Your task to perform on an android device: change your default location settings in chrome Image 0: 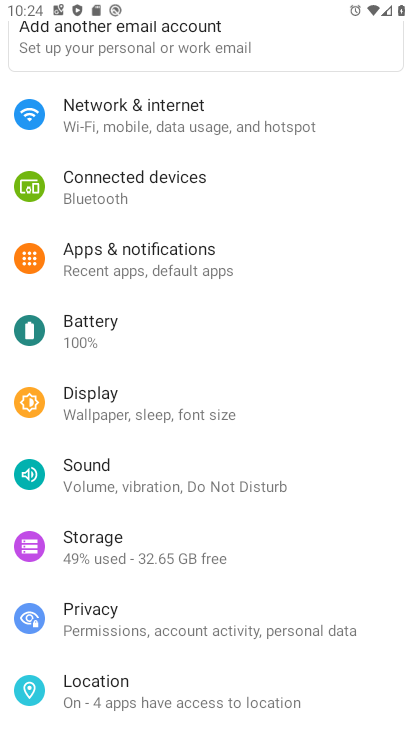
Step 0: press home button
Your task to perform on an android device: change your default location settings in chrome Image 1: 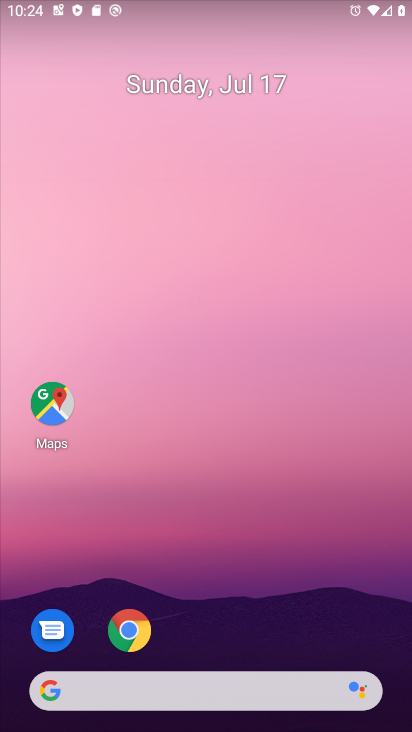
Step 1: drag from (292, 601) to (294, 50)
Your task to perform on an android device: change your default location settings in chrome Image 2: 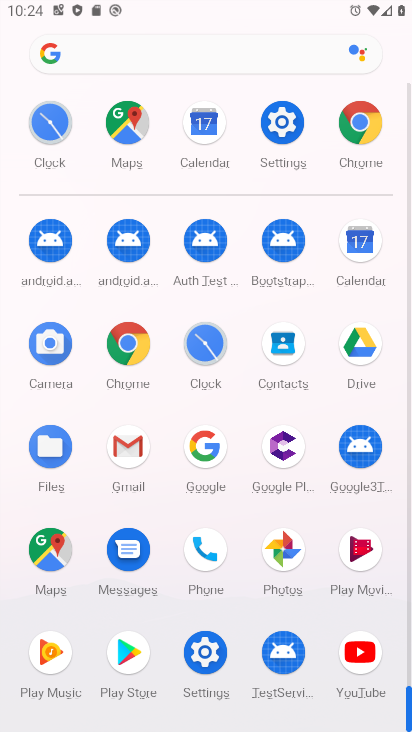
Step 2: click (126, 354)
Your task to perform on an android device: change your default location settings in chrome Image 3: 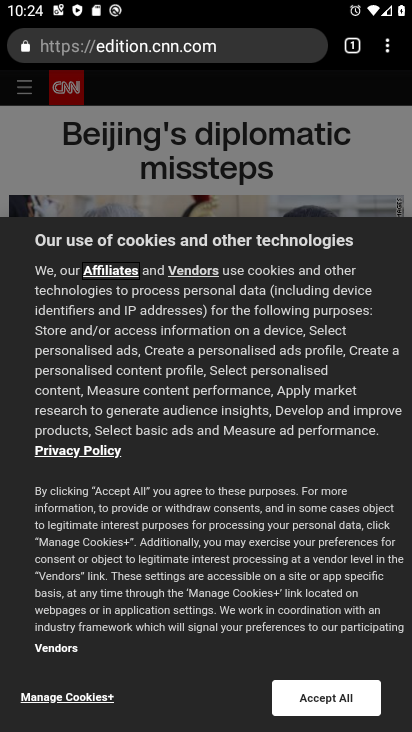
Step 3: click (387, 48)
Your task to perform on an android device: change your default location settings in chrome Image 4: 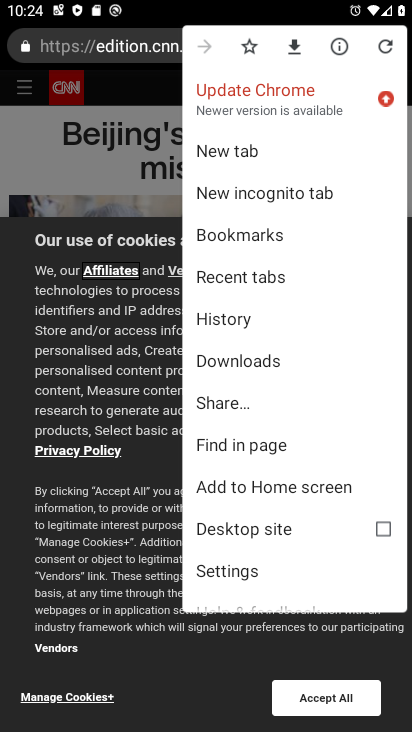
Step 4: drag from (308, 447) to (335, 281)
Your task to perform on an android device: change your default location settings in chrome Image 5: 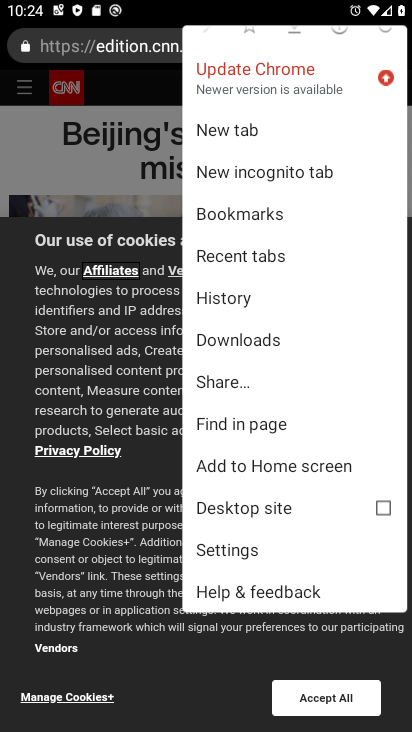
Step 5: click (270, 553)
Your task to perform on an android device: change your default location settings in chrome Image 6: 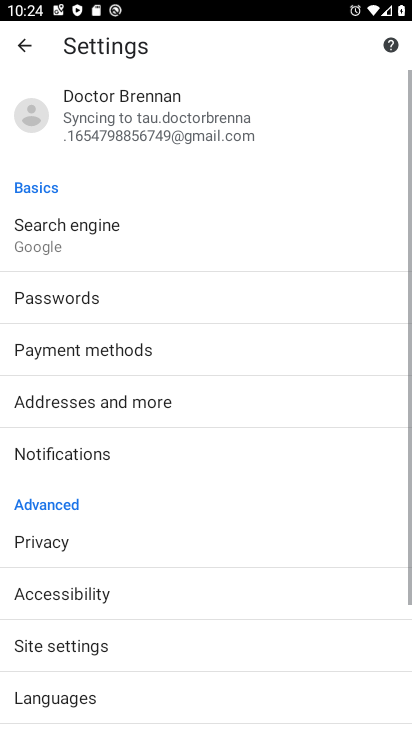
Step 6: drag from (305, 519) to (310, 388)
Your task to perform on an android device: change your default location settings in chrome Image 7: 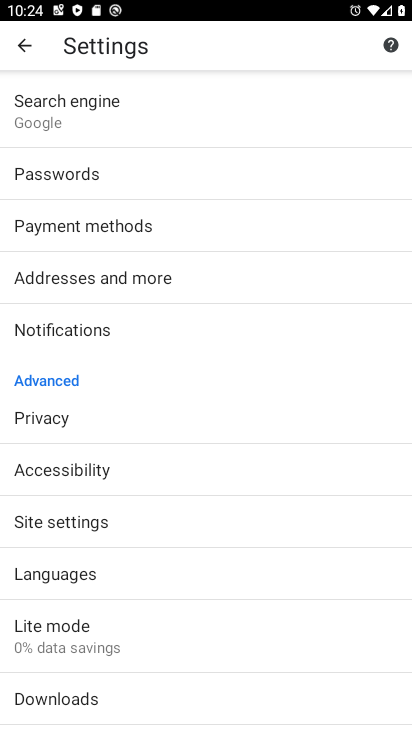
Step 7: drag from (307, 534) to (309, 376)
Your task to perform on an android device: change your default location settings in chrome Image 8: 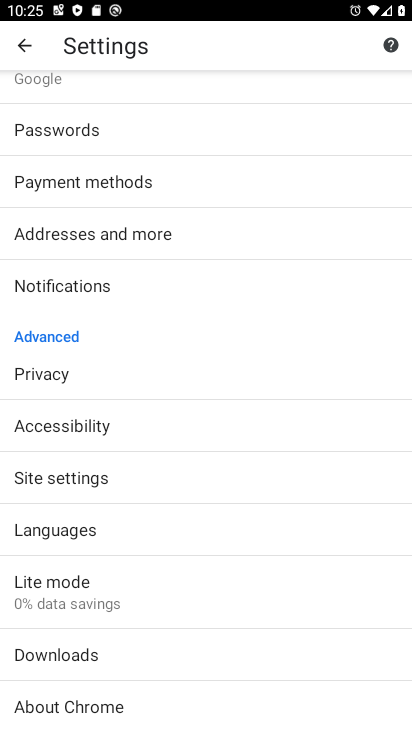
Step 8: drag from (306, 264) to (307, 368)
Your task to perform on an android device: change your default location settings in chrome Image 9: 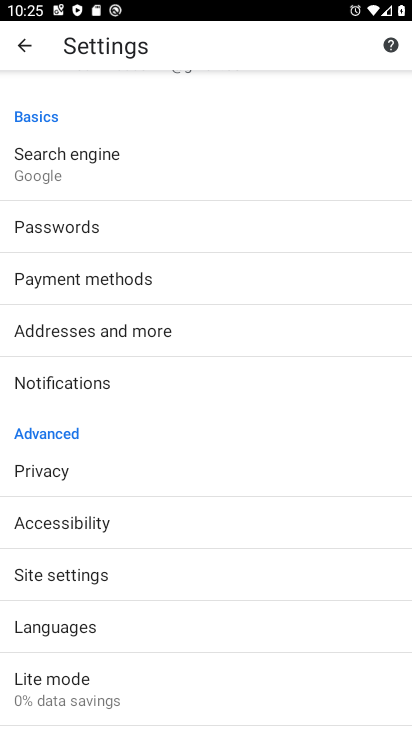
Step 9: drag from (287, 225) to (292, 327)
Your task to perform on an android device: change your default location settings in chrome Image 10: 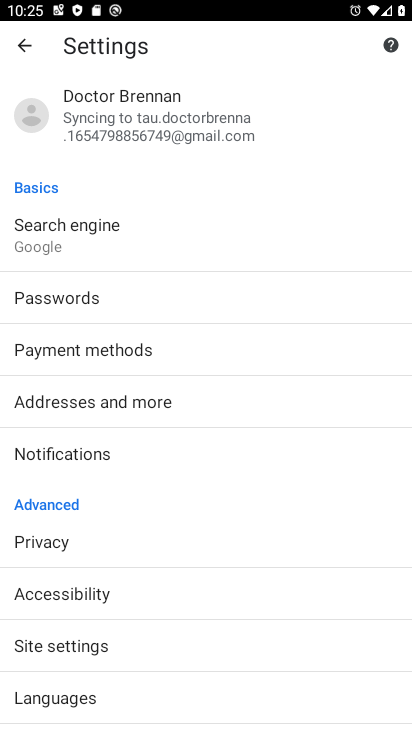
Step 10: drag from (316, 486) to (324, 383)
Your task to perform on an android device: change your default location settings in chrome Image 11: 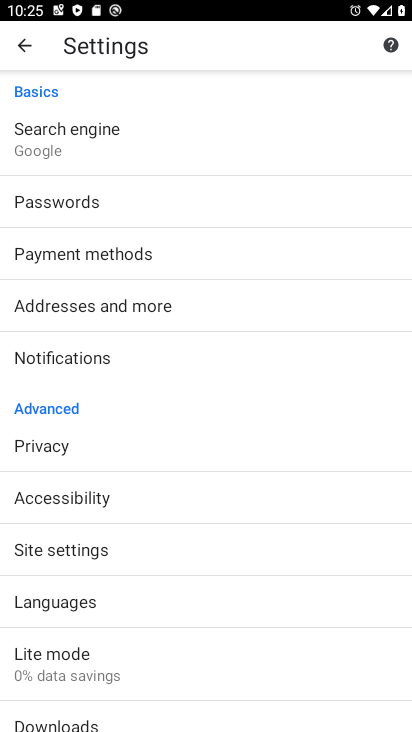
Step 11: drag from (300, 510) to (309, 383)
Your task to perform on an android device: change your default location settings in chrome Image 12: 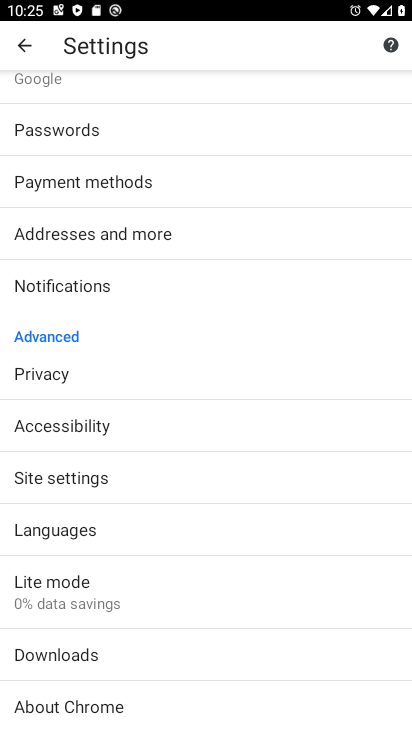
Step 12: click (235, 470)
Your task to perform on an android device: change your default location settings in chrome Image 13: 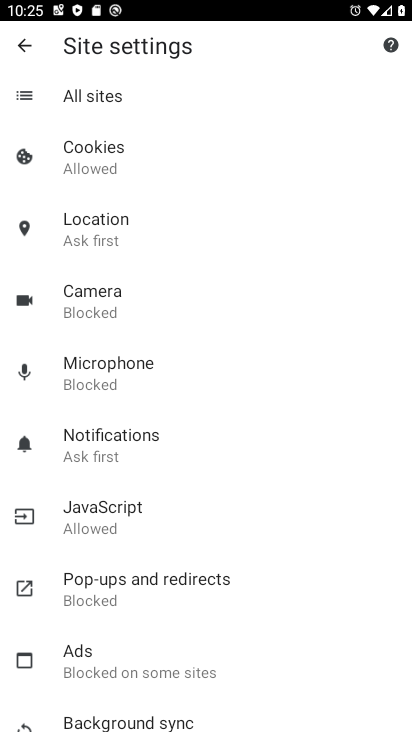
Step 13: drag from (317, 488) to (335, 382)
Your task to perform on an android device: change your default location settings in chrome Image 14: 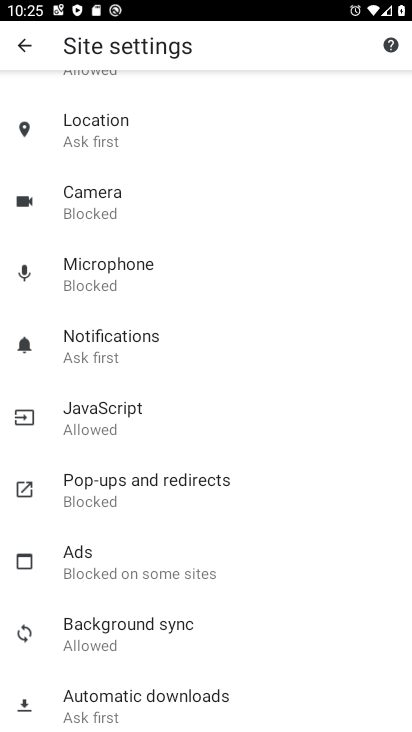
Step 14: drag from (329, 513) to (330, 384)
Your task to perform on an android device: change your default location settings in chrome Image 15: 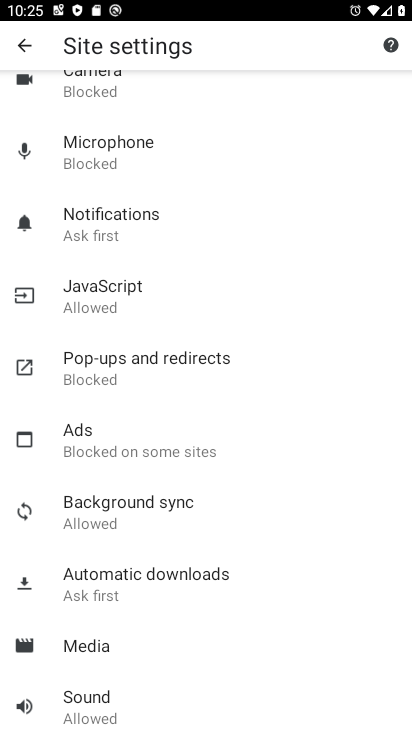
Step 15: drag from (313, 492) to (317, 373)
Your task to perform on an android device: change your default location settings in chrome Image 16: 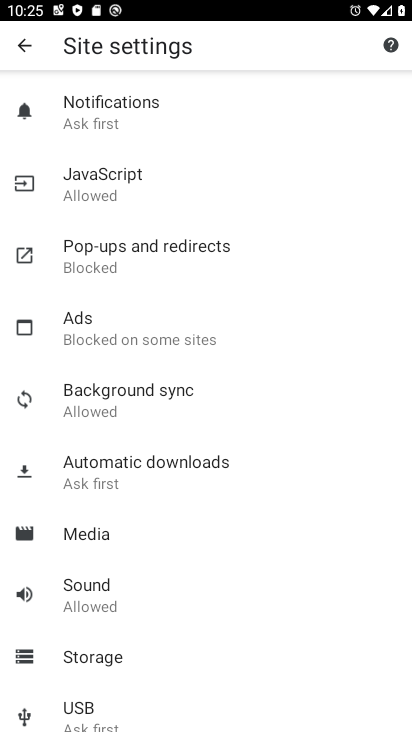
Step 16: drag from (319, 251) to (319, 377)
Your task to perform on an android device: change your default location settings in chrome Image 17: 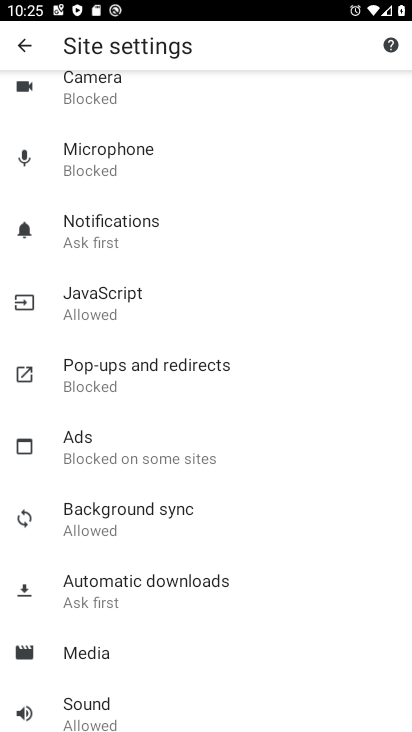
Step 17: drag from (304, 210) to (310, 413)
Your task to perform on an android device: change your default location settings in chrome Image 18: 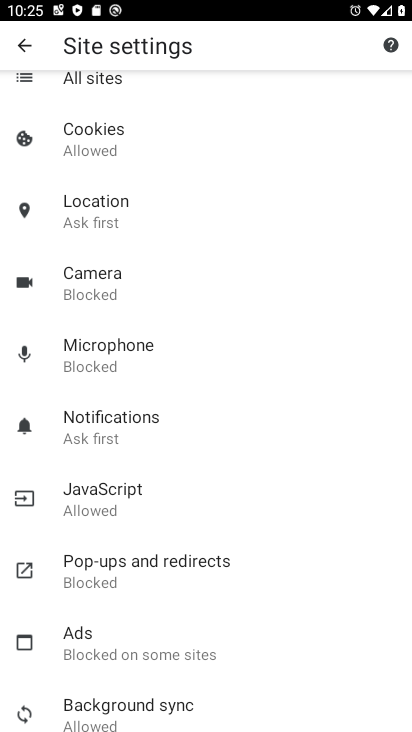
Step 18: drag from (305, 152) to (306, 342)
Your task to perform on an android device: change your default location settings in chrome Image 19: 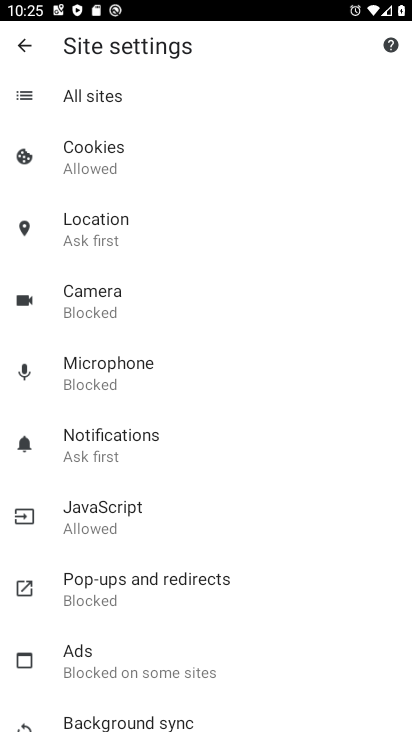
Step 19: click (104, 237)
Your task to perform on an android device: change your default location settings in chrome Image 20: 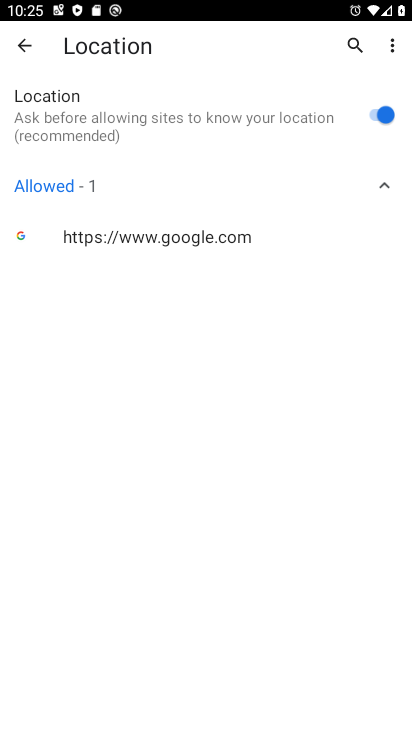
Step 20: click (378, 113)
Your task to perform on an android device: change your default location settings in chrome Image 21: 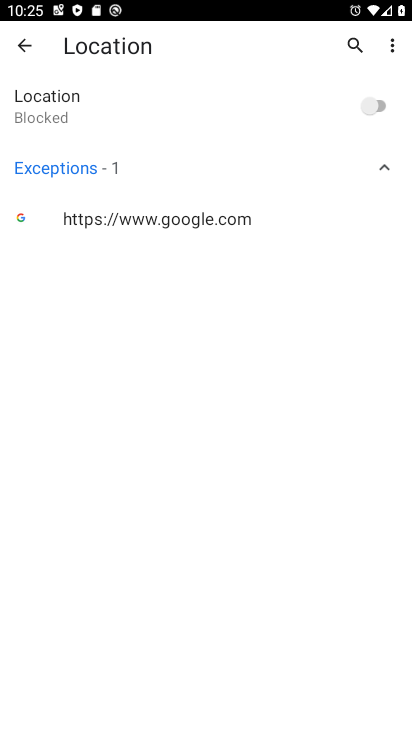
Step 21: task complete